Your task to perform on an android device: Open wifi settings Image 0: 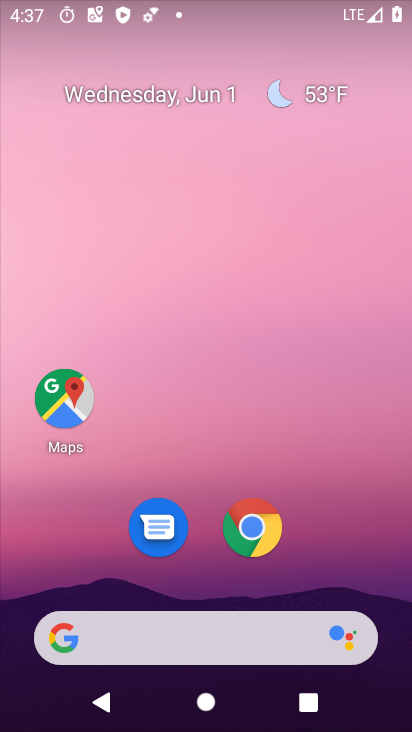
Step 0: drag from (109, 10) to (117, 482)
Your task to perform on an android device: Open wifi settings Image 1: 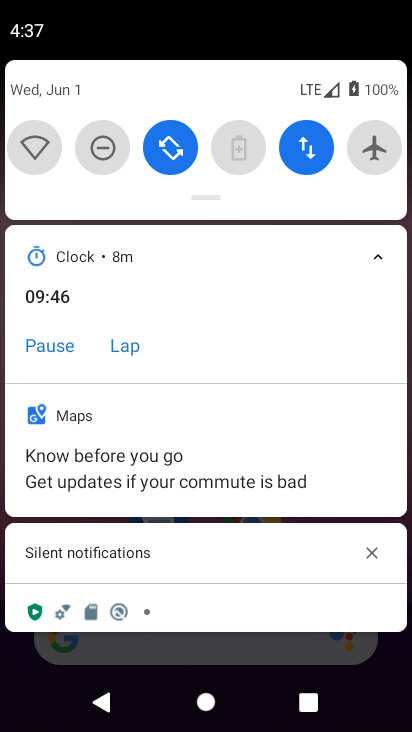
Step 1: click (35, 147)
Your task to perform on an android device: Open wifi settings Image 2: 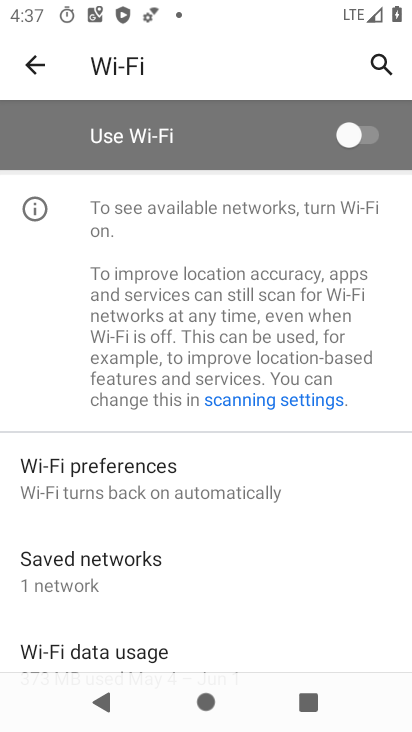
Step 2: task complete